Your task to perform on an android device: Search for Italian restaurants on Maps Image 0: 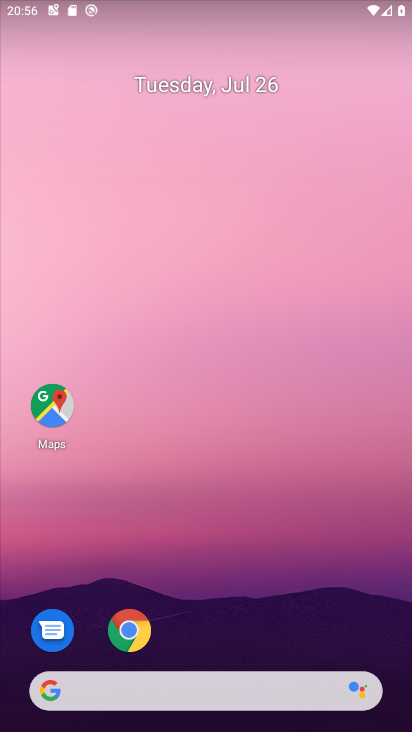
Step 0: click (43, 412)
Your task to perform on an android device: Search for Italian restaurants on Maps Image 1: 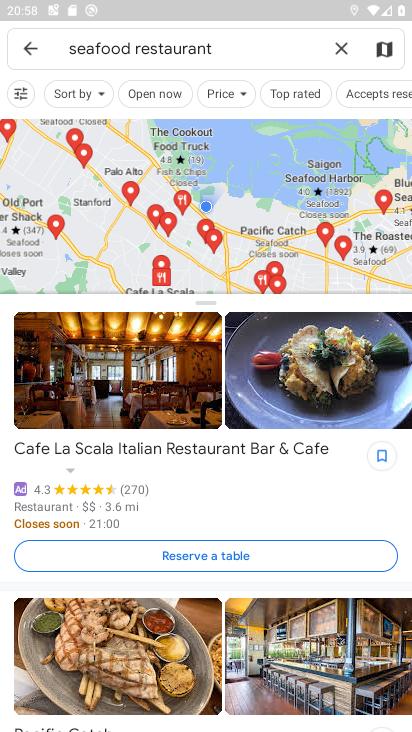
Step 1: click (340, 43)
Your task to perform on an android device: Search for Italian restaurants on Maps Image 2: 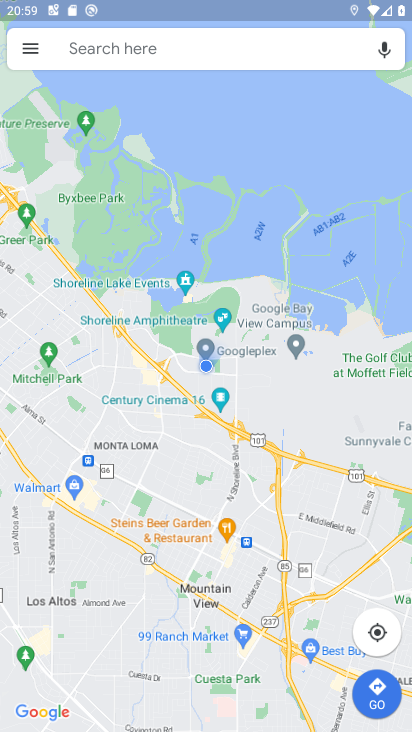
Step 2: click (100, 54)
Your task to perform on an android device: Search for Italian restaurants on Maps Image 3: 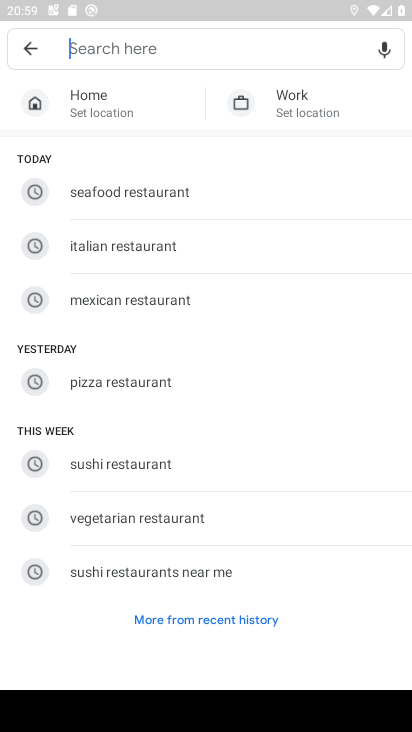
Step 3: type "Italian restaurants"
Your task to perform on an android device: Search for Italian restaurants on Maps Image 4: 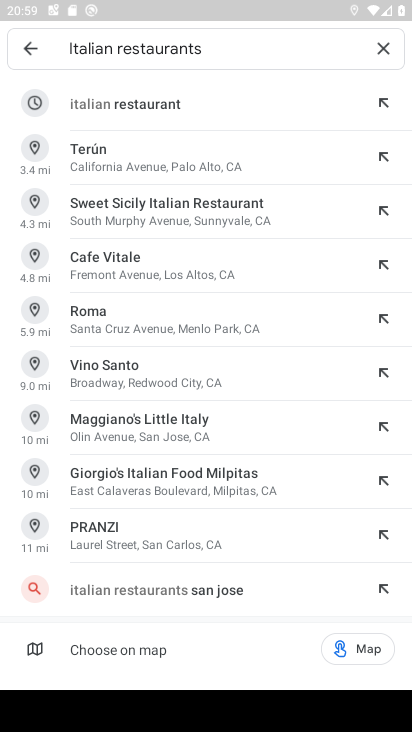
Step 4: click (107, 96)
Your task to perform on an android device: Search for Italian restaurants on Maps Image 5: 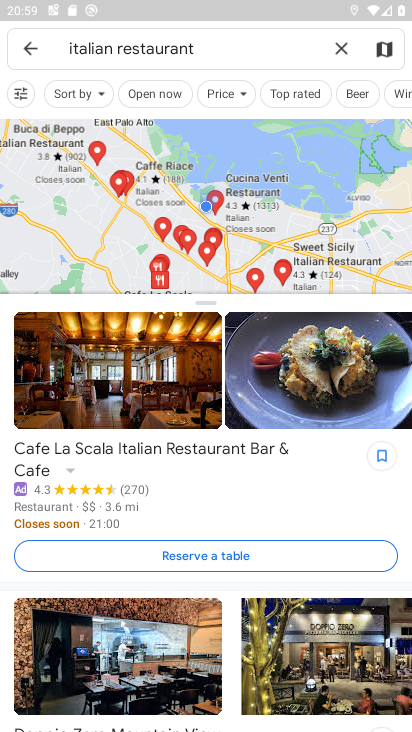
Step 5: task complete